Your task to perform on an android device: Open eBay Image 0: 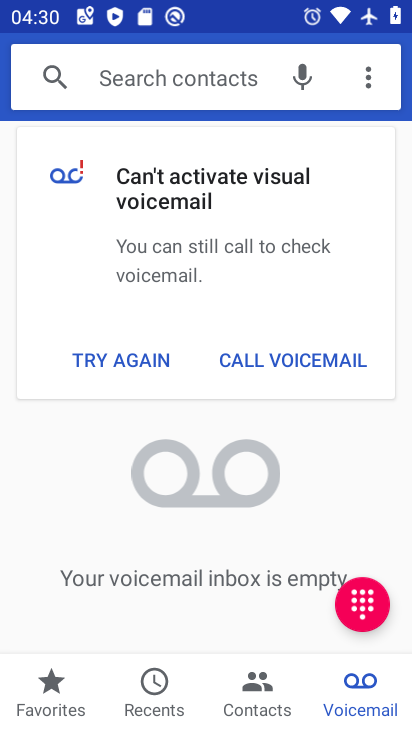
Step 0: press home button
Your task to perform on an android device: Open eBay Image 1: 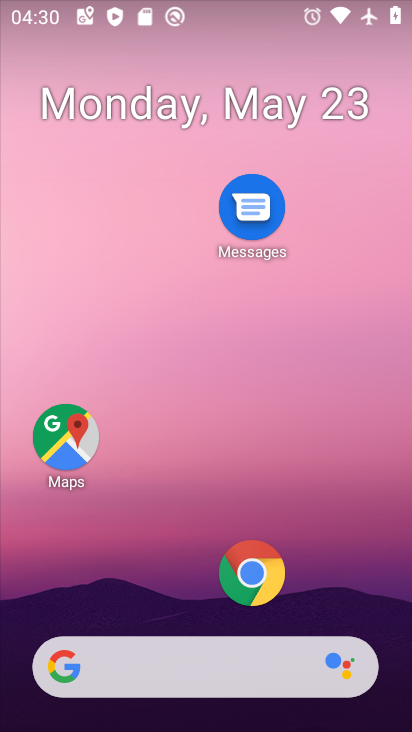
Step 1: drag from (291, 628) to (372, 36)
Your task to perform on an android device: Open eBay Image 2: 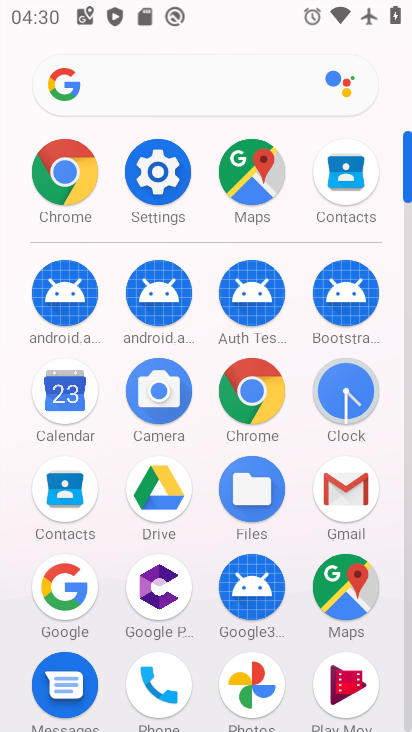
Step 2: click (264, 407)
Your task to perform on an android device: Open eBay Image 3: 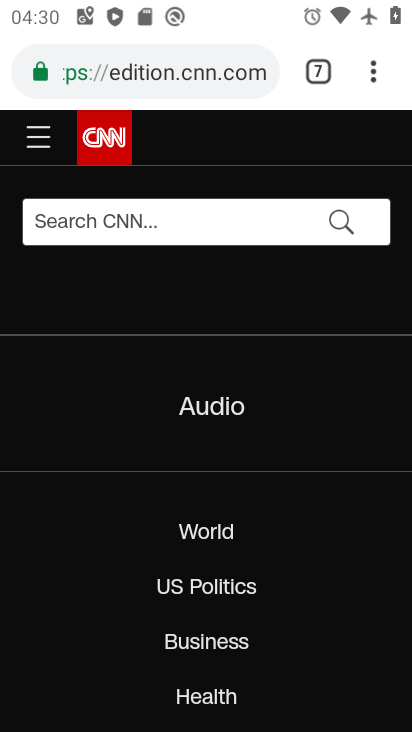
Step 3: click (201, 84)
Your task to perform on an android device: Open eBay Image 4: 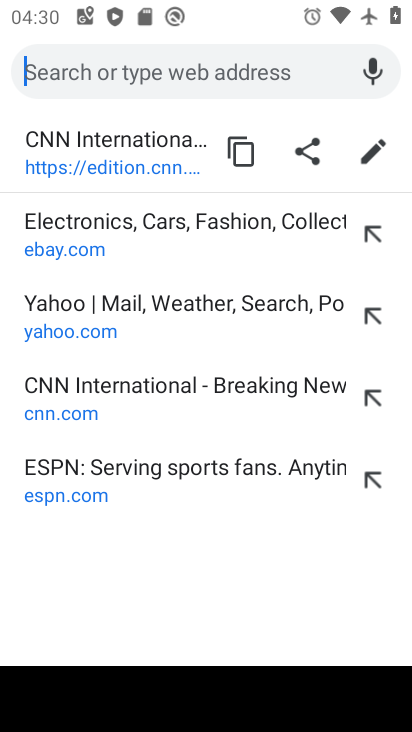
Step 4: type "ebay"
Your task to perform on an android device: Open eBay Image 5: 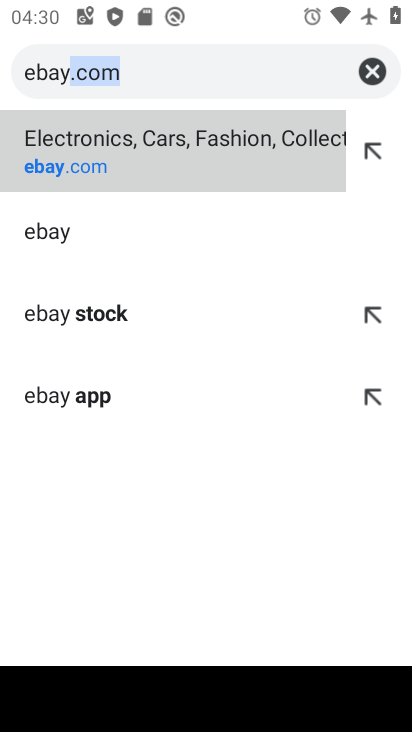
Step 5: click (187, 140)
Your task to perform on an android device: Open eBay Image 6: 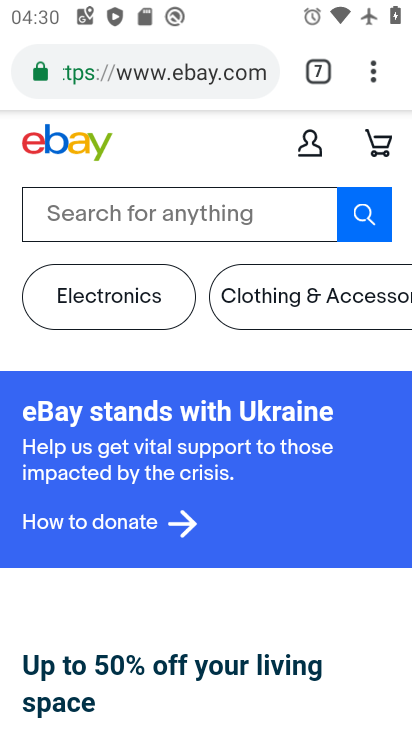
Step 6: task complete